Your task to perform on an android device: Go to sound settings Image 0: 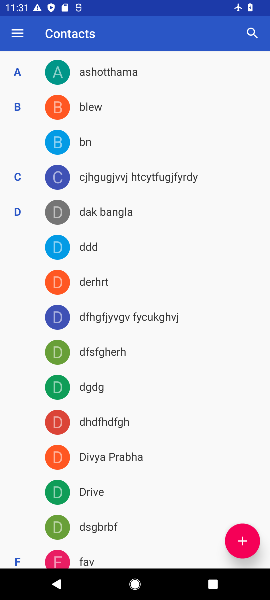
Step 0: press home button
Your task to perform on an android device: Go to sound settings Image 1: 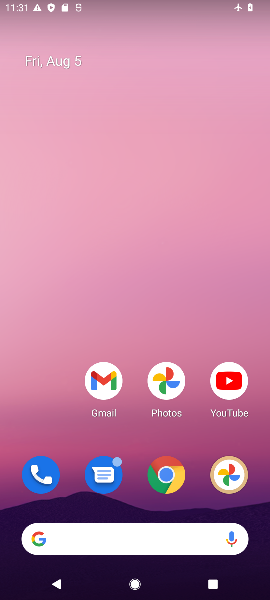
Step 1: drag from (153, 512) to (189, 33)
Your task to perform on an android device: Go to sound settings Image 2: 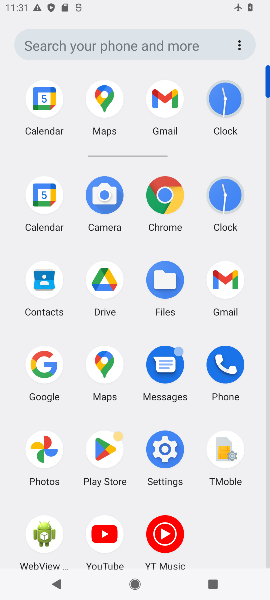
Step 2: click (160, 444)
Your task to perform on an android device: Go to sound settings Image 3: 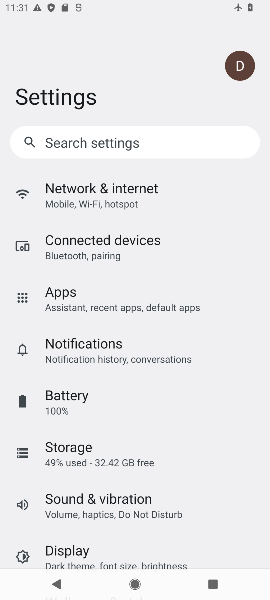
Step 3: click (101, 191)
Your task to perform on an android device: Go to sound settings Image 4: 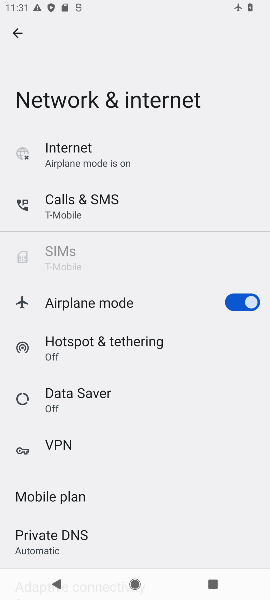
Step 4: click (18, 27)
Your task to perform on an android device: Go to sound settings Image 5: 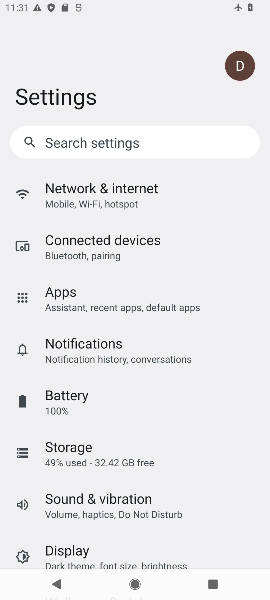
Step 5: click (81, 507)
Your task to perform on an android device: Go to sound settings Image 6: 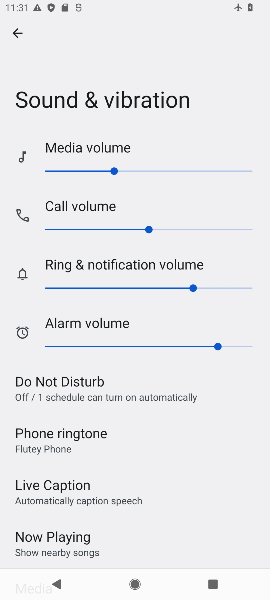
Step 6: task complete